Your task to perform on an android device: Open Reddit.com Image 0: 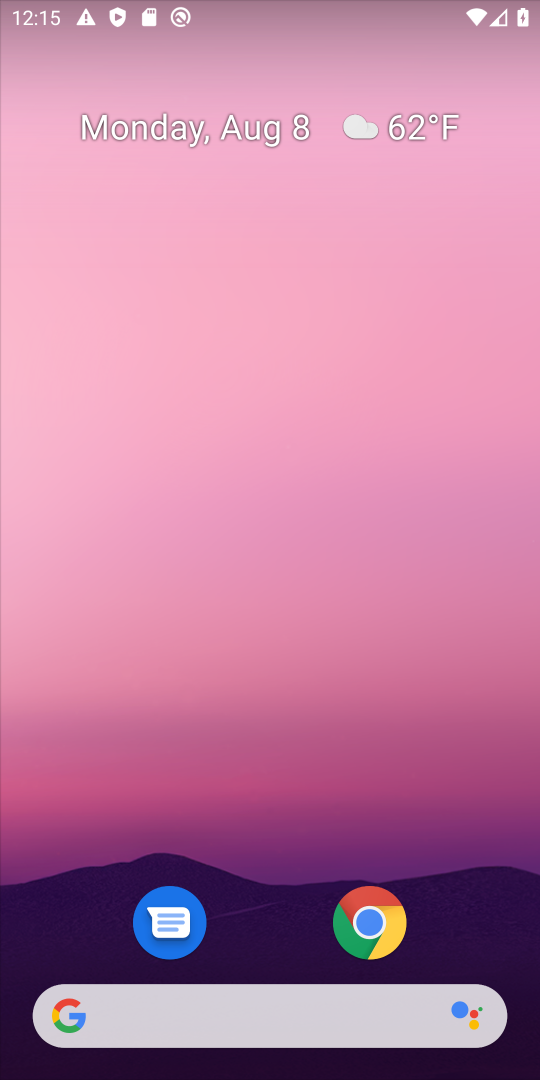
Step 0: click (384, 913)
Your task to perform on an android device: Open Reddit.com Image 1: 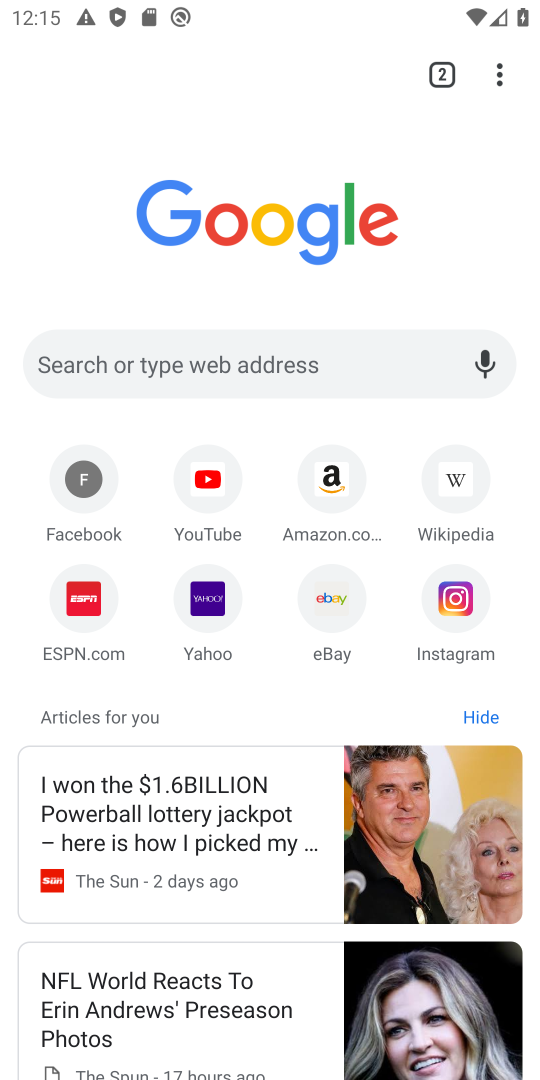
Step 1: click (268, 347)
Your task to perform on an android device: Open Reddit.com Image 2: 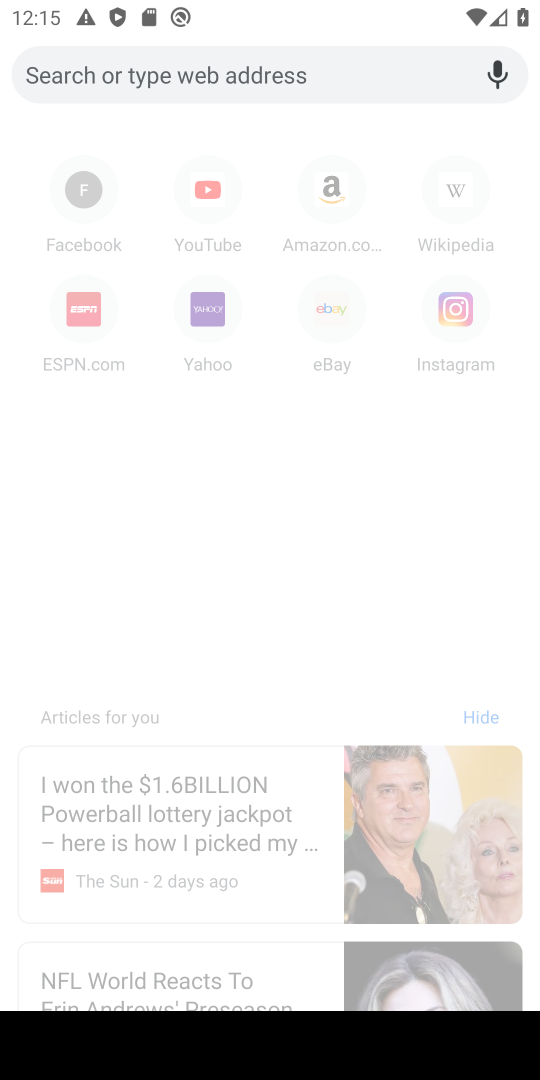
Step 2: type "reddit.com"
Your task to perform on an android device: Open Reddit.com Image 3: 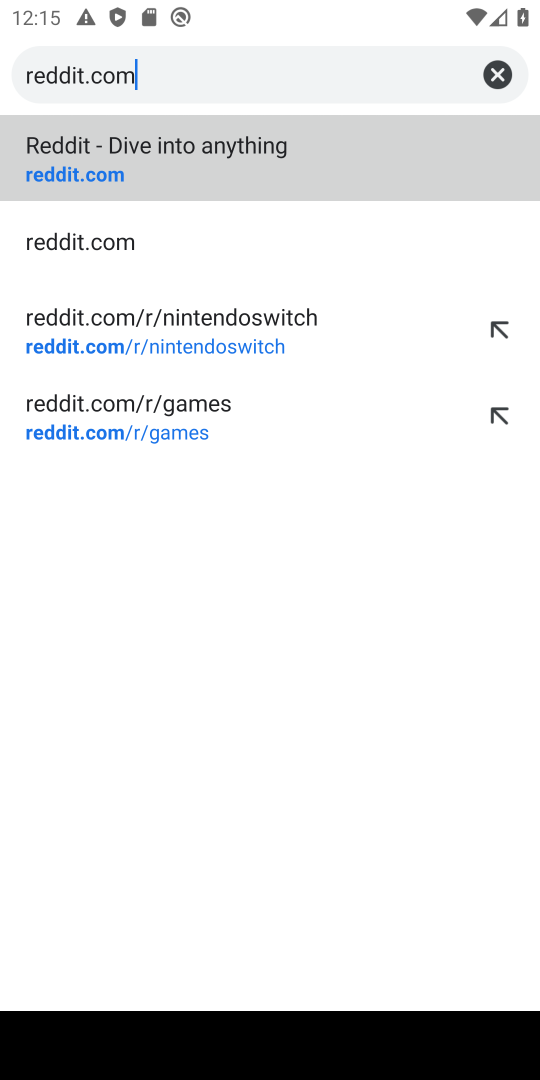
Step 3: click (151, 141)
Your task to perform on an android device: Open Reddit.com Image 4: 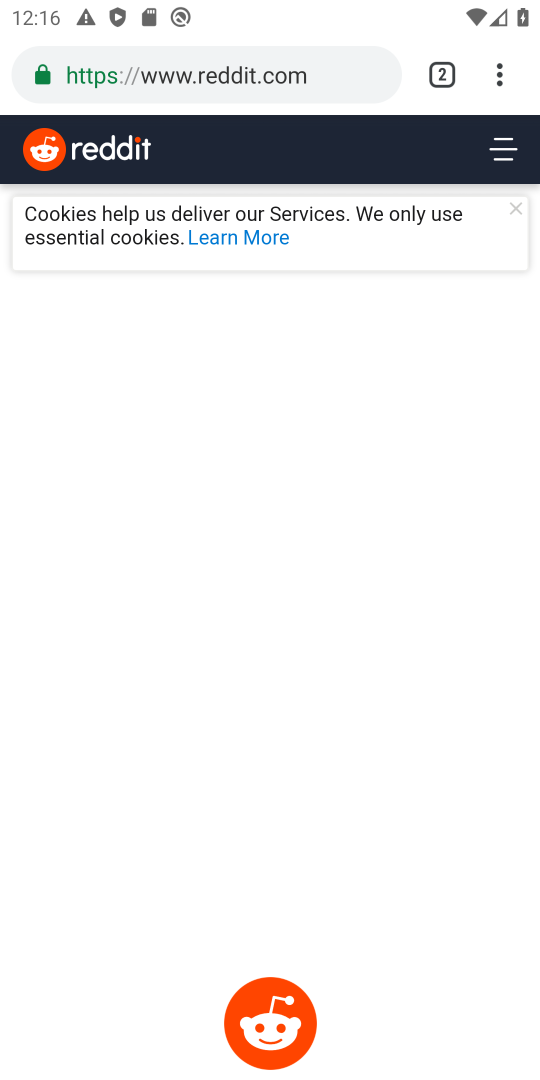
Step 4: task complete